Your task to perform on an android device: see tabs open on other devices in the chrome app Image 0: 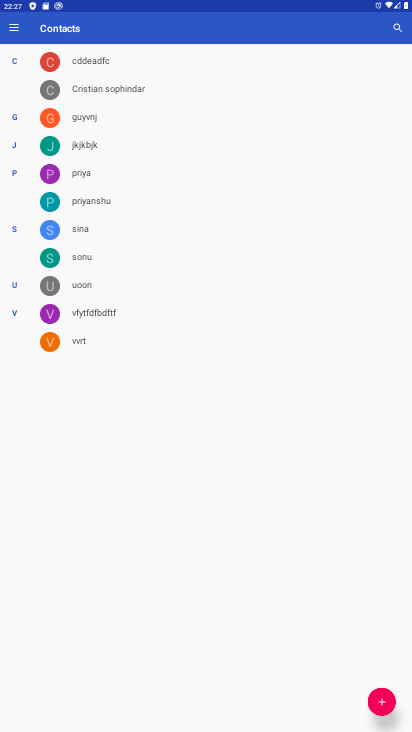
Step 0: press home button
Your task to perform on an android device: see tabs open on other devices in the chrome app Image 1: 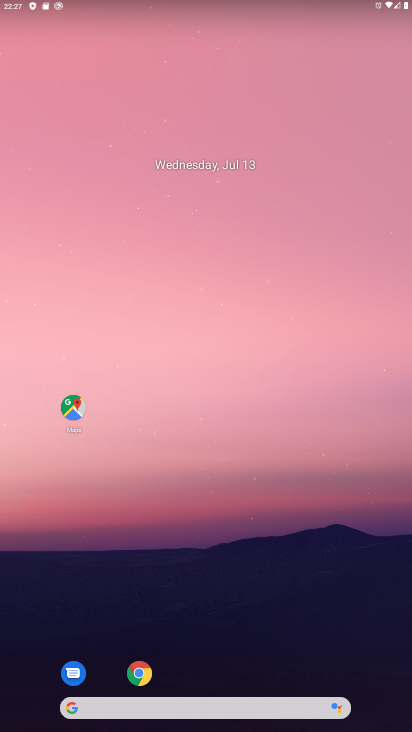
Step 1: drag from (212, 681) to (253, 374)
Your task to perform on an android device: see tabs open on other devices in the chrome app Image 2: 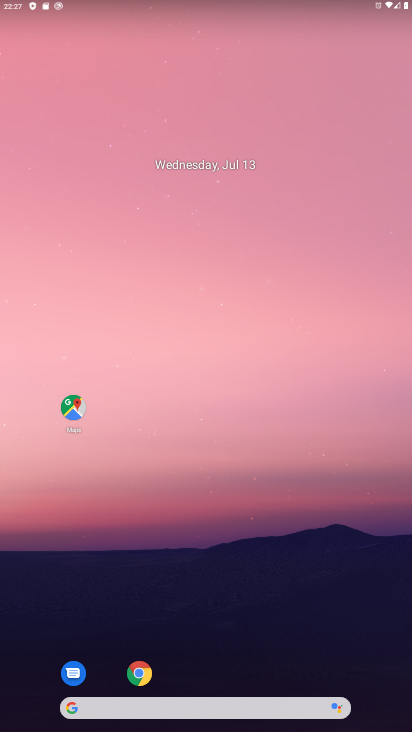
Step 2: click (148, 678)
Your task to perform on an android device: see tabs open on other devices in the chrome app Image 3: 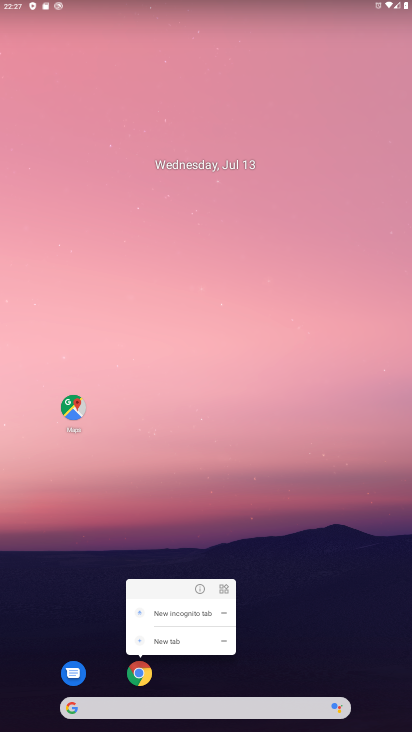
Step 3: click (137, 679)
Your task to perform on an android device: see tabs open on other devices in the chrome app Image 4: 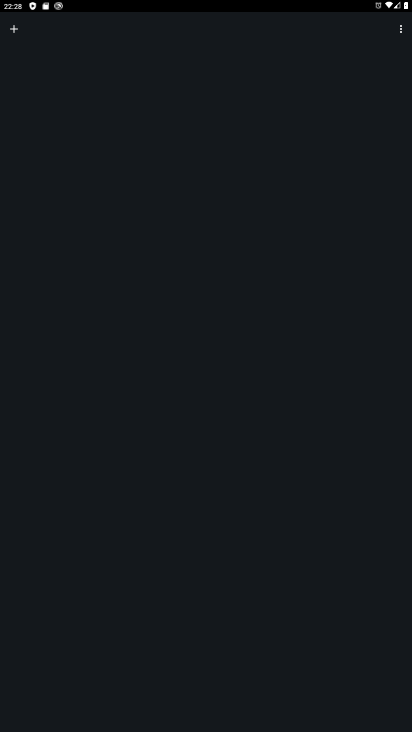
Step 4: click (12, 29)
Your task to perform on an android device: see tabs open on other devices in the chrome app Image 5: 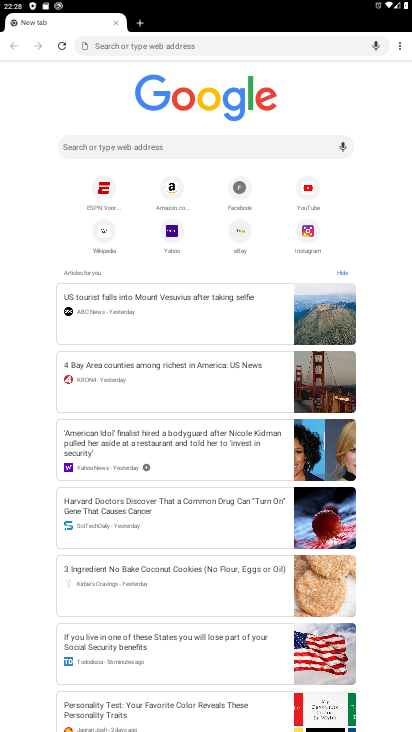
Step 5: click (404, 41)
Your task to perform on an android device: see tabs open on other devices in the chrome app Image 6: 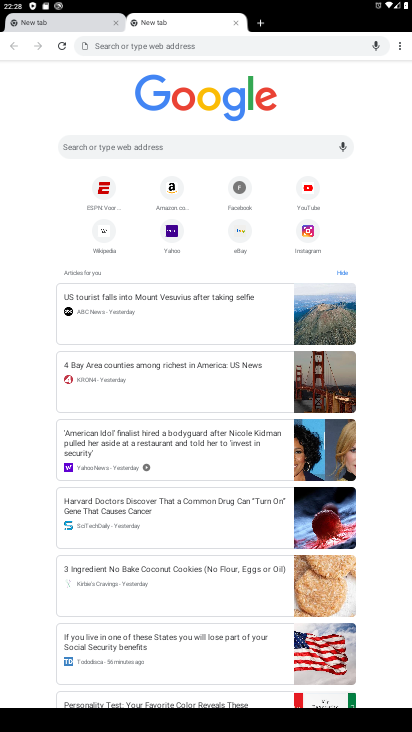
Step 6: task complete